Your task to perform on an android device: Open network settings Image 0: 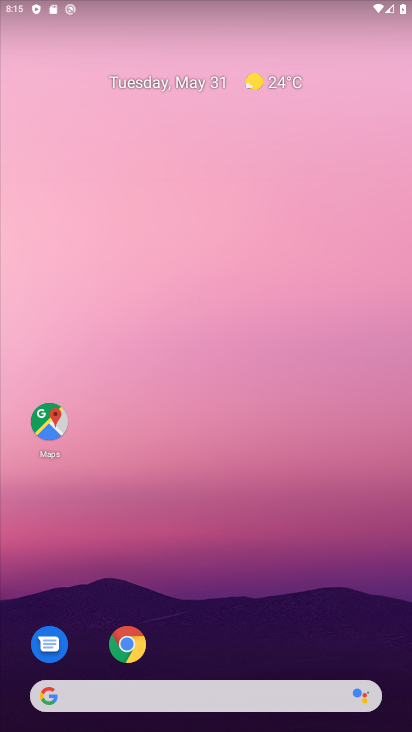
Step 0: drag from (236, 625) to (23, 44)
Your task to perform on an android device: Open network settings Image 1: 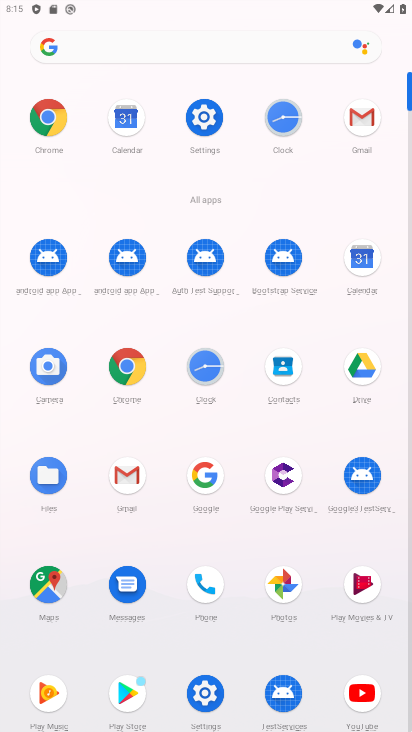
Step 1: click (203, 120)
Your task to perform on an android device: Open network settings Image 2: 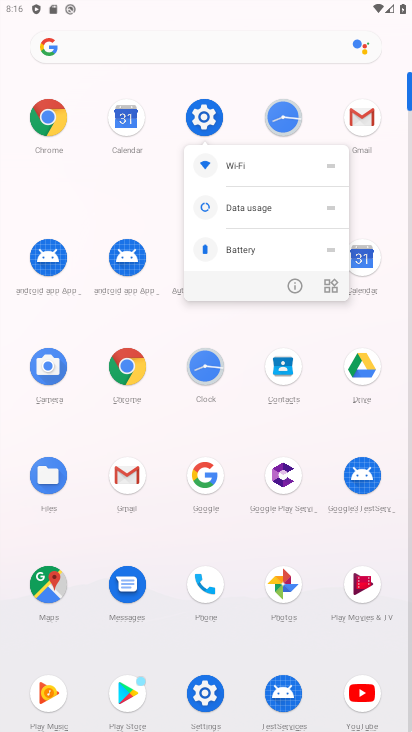
Step 2: click (199, 114)
Your task to perform on an android device: Open network settings Image 3: 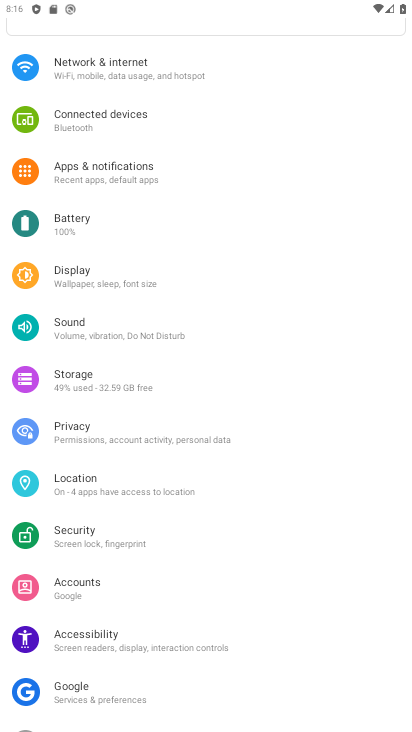
Step 3: click (105, 67)
Your task to perform on an android device: Open network settings Image 4: 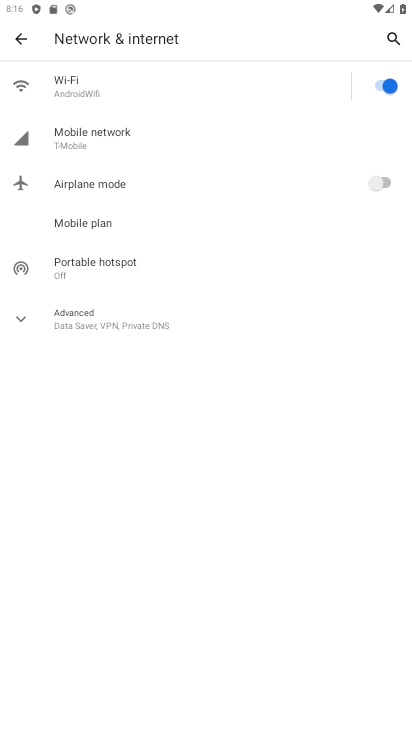
Step 4: task complete